Your task to perform on an android device: turn off sleep mode Image 0: 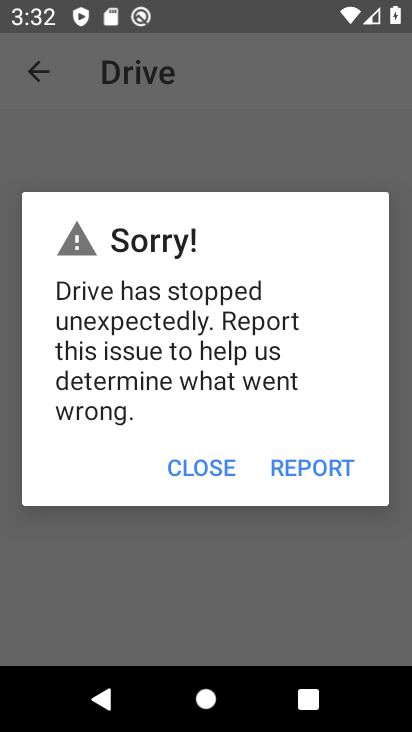
Step 0: press home button
Your task to perform on an android device: turn off sleep mode Image 1: 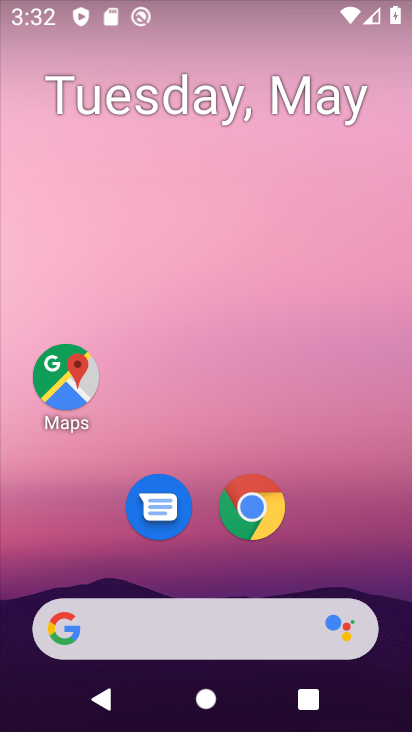
Step 1: drag from (354, 324) to (320, 91)
Your task to perform on an android device: turn off sleep mode Image 2: 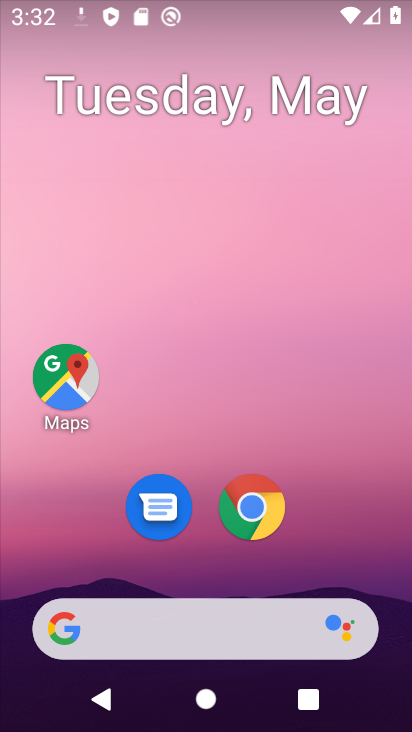
Step 2: drag from (314, 577) to (233, 179)
Your task to perform on an android device: turn off sleep mode Image 3: 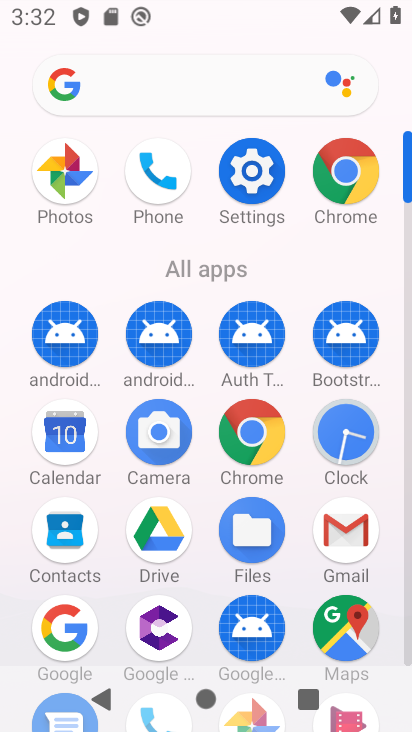
Step 3: click (260, 185)
Your task to perform on an android device: turn off sleep mode Image 4: 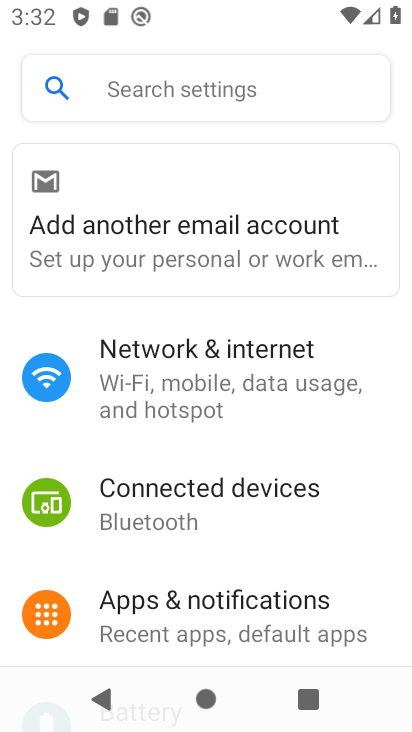
Step 4: drag from (324, 562) to (262, 217)
Your task to perform on an android device: turn off sleep mode Image 5: 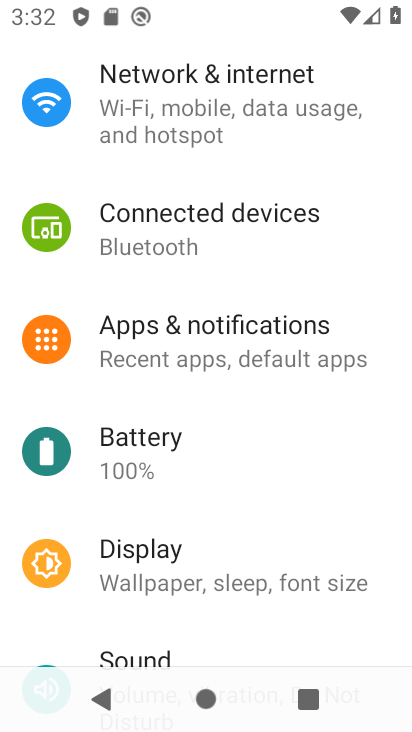
Step 5: click (178, 562)
Your task to perform on an android device: turn off sleep mode Image 6: 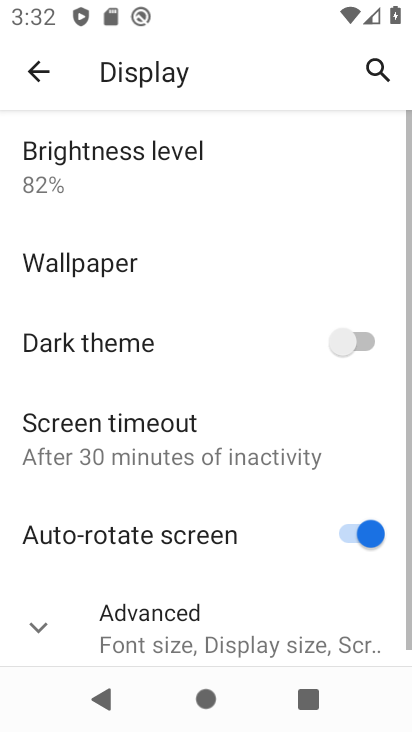
Step 6: drag from (177, 570) to (128, 211)
Your task to perform on an android device: turn off sleep mode Image 7: 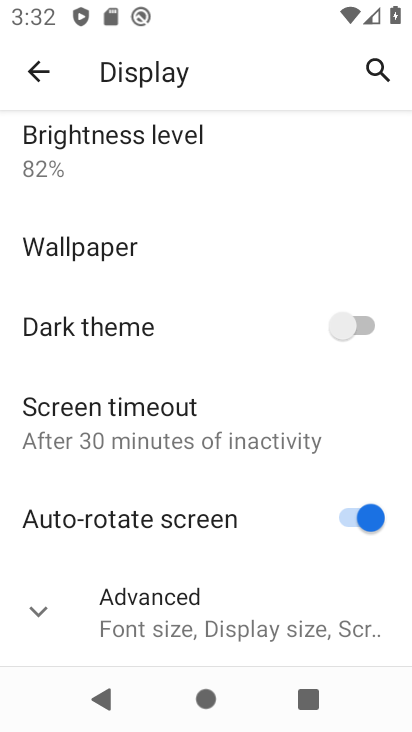
Step 7: click (129, 384)
Your task to perform on an android device: turn off sleep mode Image 8: 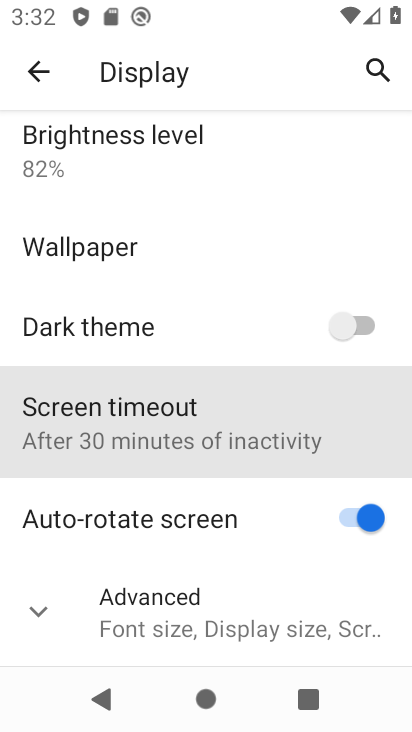
Step 8: click (141, 403)
Your task to perform on an android device: turn off sleep mode Image 9: 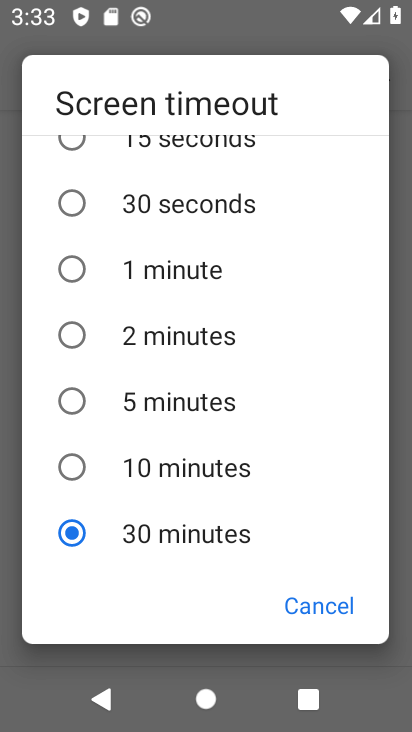
Step 9: click (75, 329)
Your task to perform on an android device: turn off sleep mode Image 10: 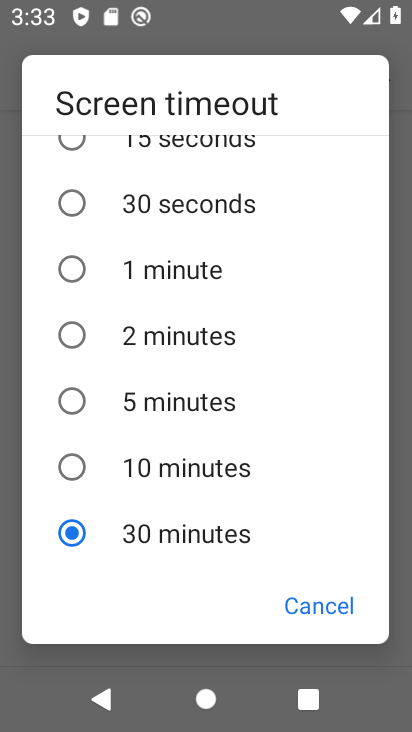
Step 10: task complete